Your task to perform on an android device: What's the weather going to be this weekend? Image 0: 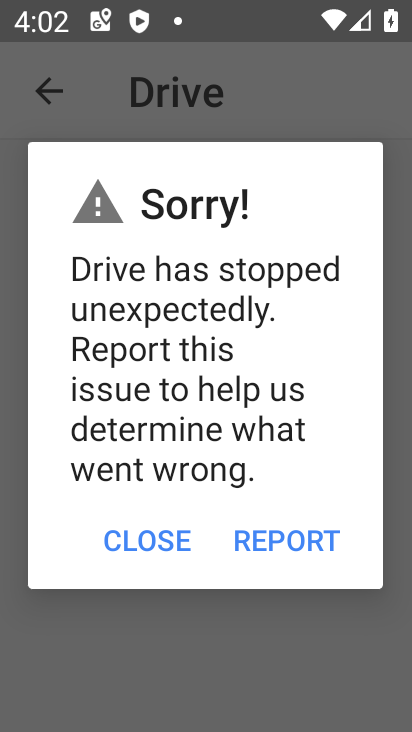
Step 0: press home button
Your task to perform on an android device: What's the weather going to be this weekend? Image 1: 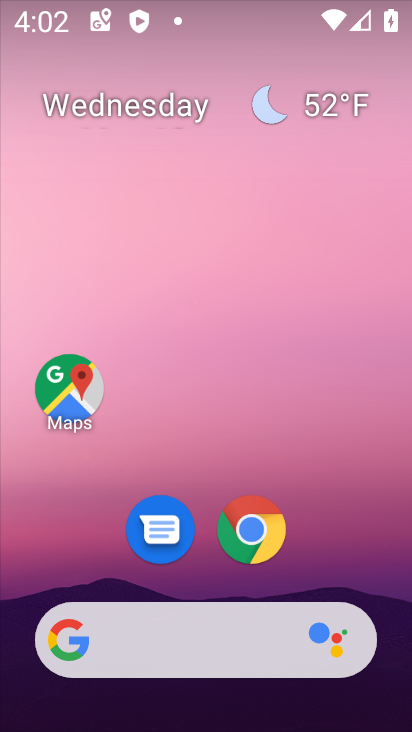
Step 1: drag from (334, 559) to (280, 93)
Your task to perform on an android device: What's the weather going to be this weekend? Image 2: 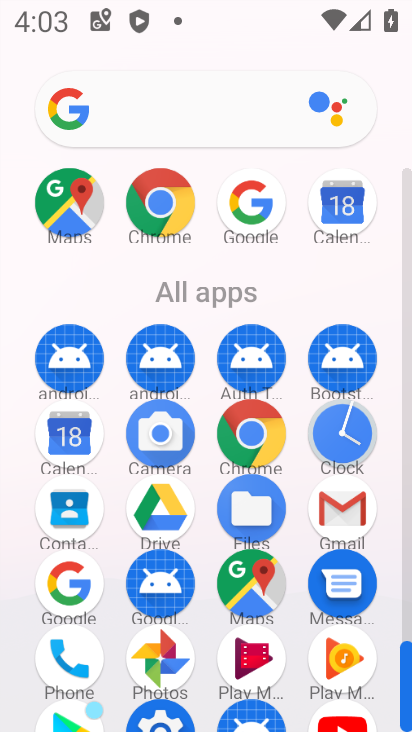
Step 2: click (246, 203)
Your task to perform on an android device: What's the weather going to be this weekend? Image 3: 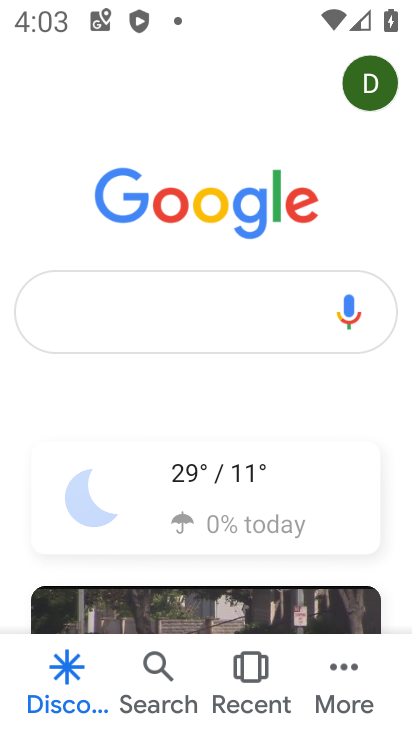
Step 3: click (183, 321)
Your task to perform on an android device: What's the weather going to be this weekend? Image 4: 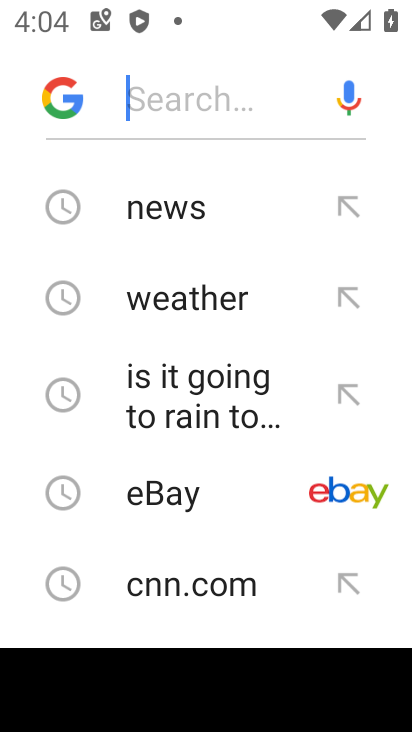
Step 4: type "What's the weather going to be this"
Your task to perform on an android device: What's the weather going to be this weekend? Image 5: 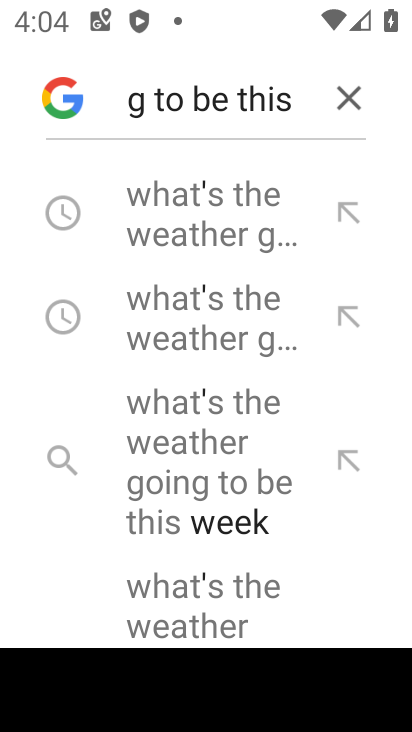
Step 5: type " weekend"
Your task to perform on an android device: What's the weather going to be this weekend? Image 6: 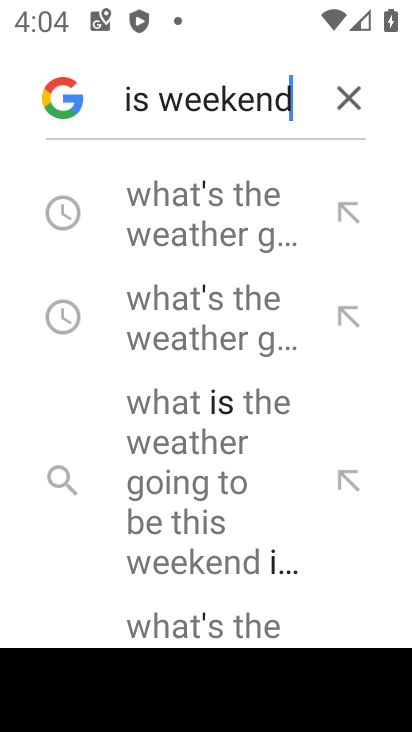
Step 6: click (229, 221)
Your task to perform on an android device: What's the weather going to be this weekend? Image 7: 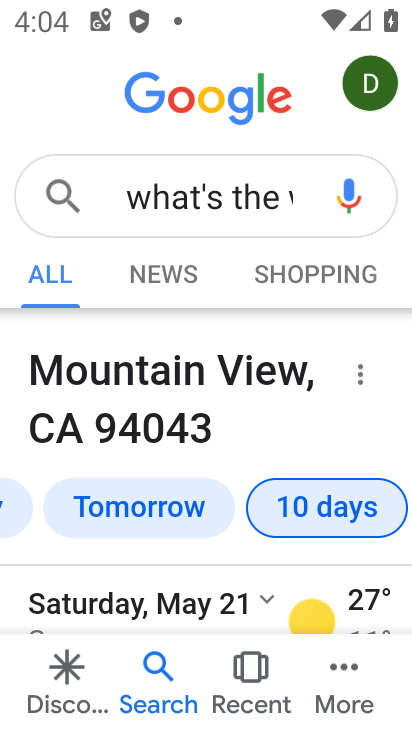
Step 7: task complete